Your task to perform on an android device: stop showing notifications on the lock screen Image 0: 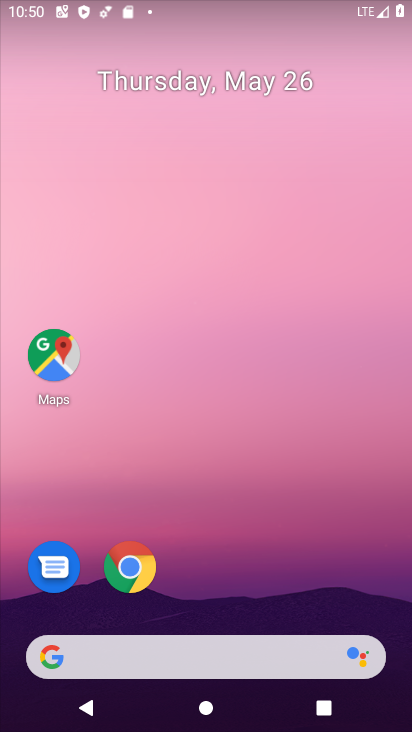
Step 0: drag from (266, 678) to (266, 124)
Your task to perform on an android device: stop showing notifications on the lock screen Image 1: 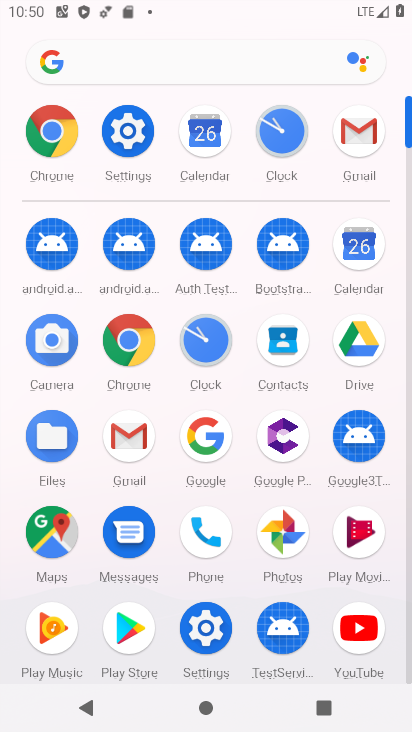
Step 1: click (148, 134)
Your task to perform on an android device: stop showing notifications on the lock screen Image 2: 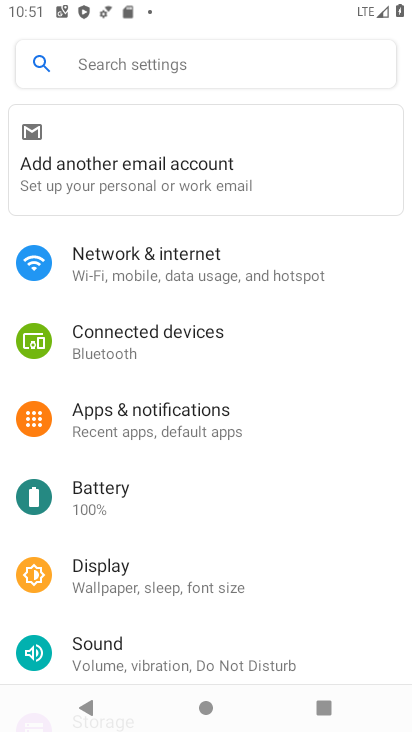
Step 2: click (178, 409)
Your task to perform on an android device: stop showing notifications on the lock screen Image 3: 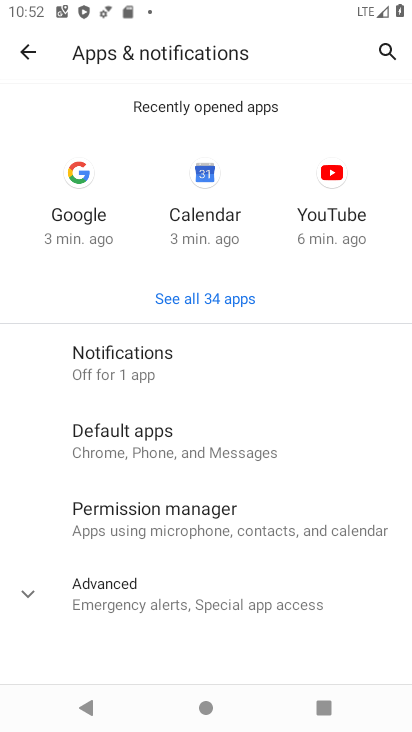
Step 3: click (206, 364)
Your task to perform on an android device: stop showing notifications on the lock screen Image 4: 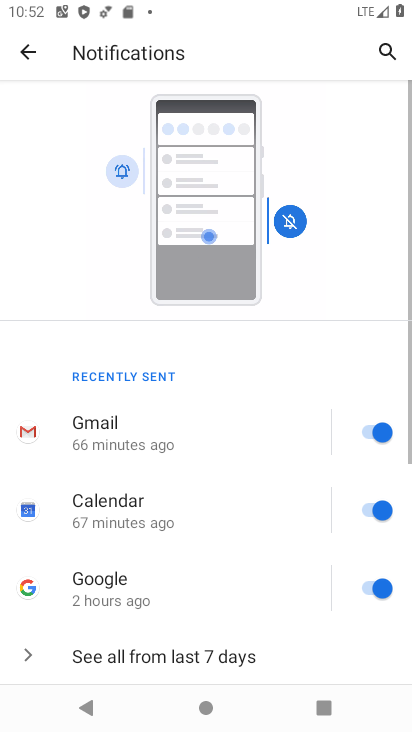
Step 4: drag from (279, 591) to (186, 7)
Your task to perform on an android device: stop showing notifications on the lock screen Image 5: 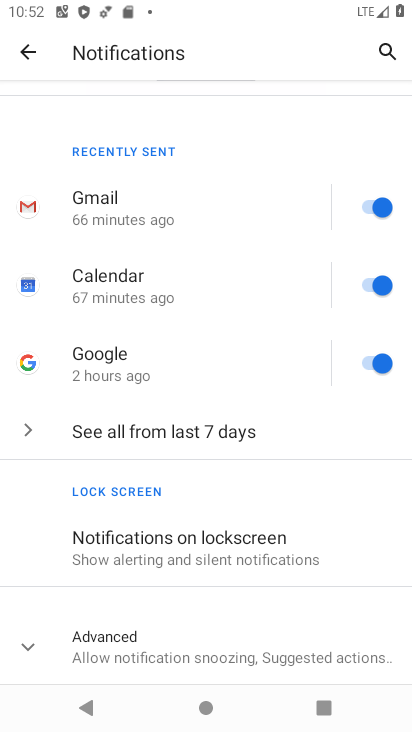
Step 5: click (224, 538)
Your task to perform on an android device: stop showing notifications on the lock screen Image 6: 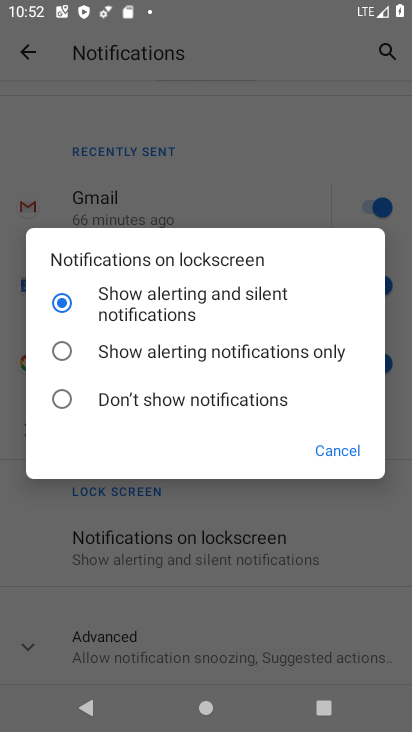
Step 6: click (241, 392)
Your task to perform on an android device: stop showing notifications on the lock screen Image 7: 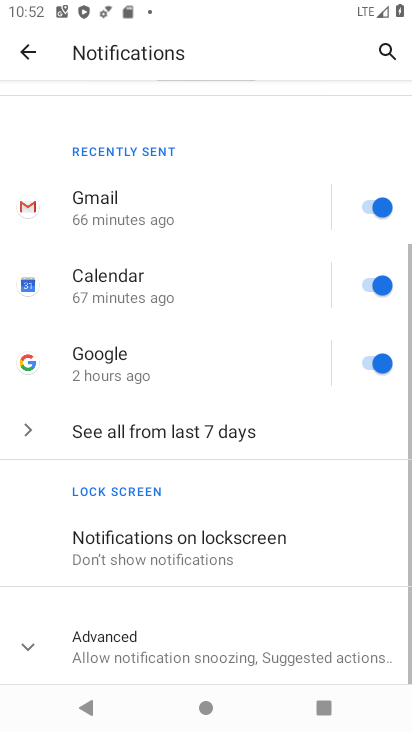
Step 7: task complete